Your task to perform on an android device: Open the web browser Image 0: 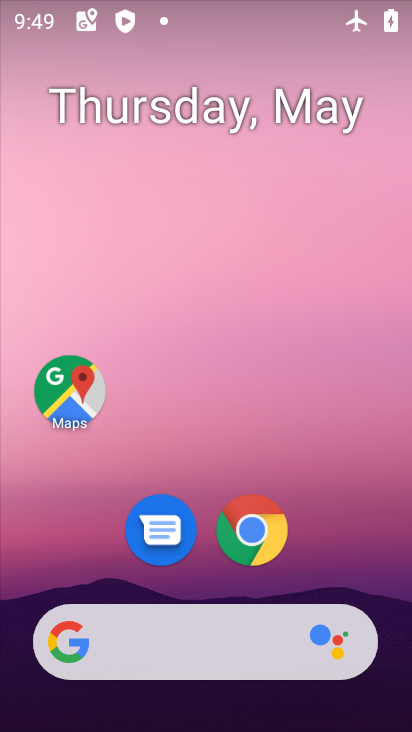
Step 0: click (249, 541)
Your task to perform on an android device: Open the web browser Image 1: 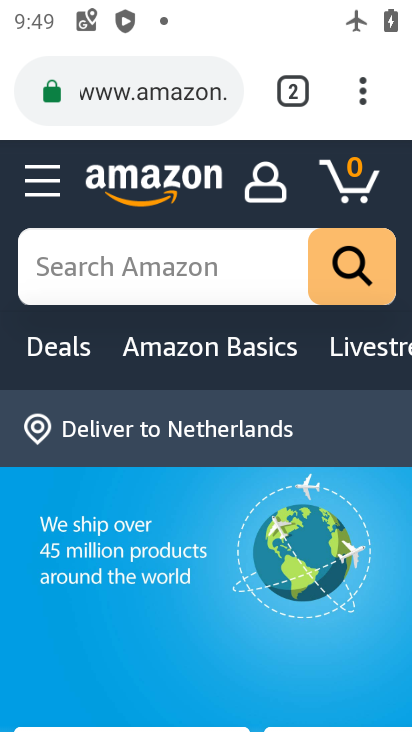
Step 1: task complete